Your task to perform on an android device: turn off javascript in the chrome app Image 0: 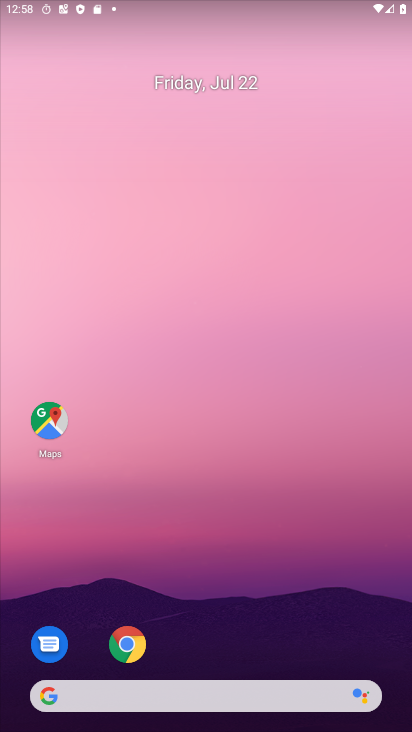
Step 0: drag from (279, 597) to (338, 157)
Your task to perform on an android device: turn off javascript in the chrome app Image 1: 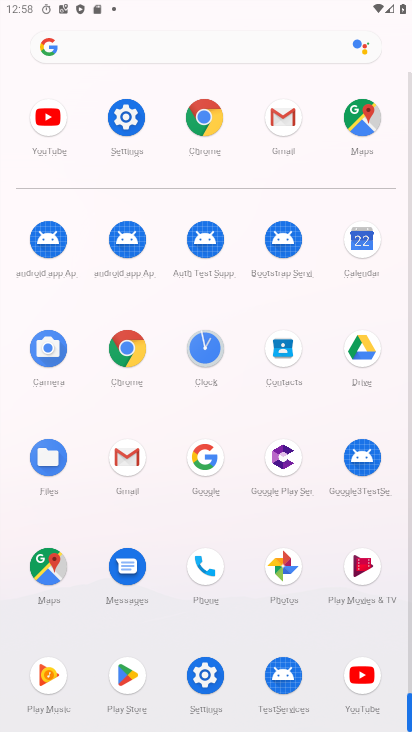
Step 1: click (140, 362)
Your task to perform on an android device: turn off javascript in the chrome app Image 2: 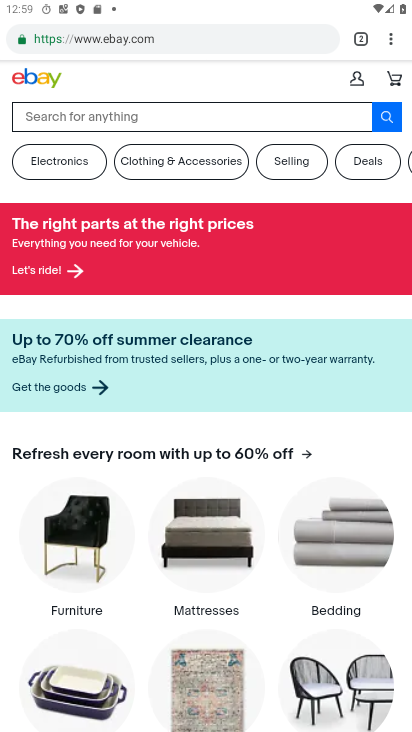
Step 2: click (395, 43)
Your task to perform on an android device: turn off javascript in the chrome app Image 3: 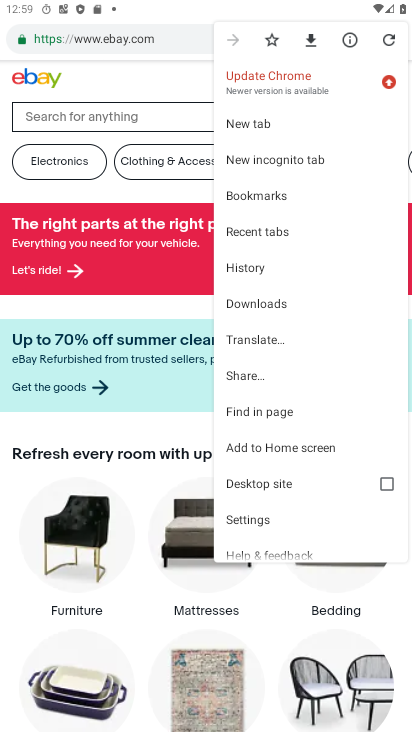
Step 3: click (259, 513)
Your task to perform on an android device: turn off javascript in the chrome app Image 4: 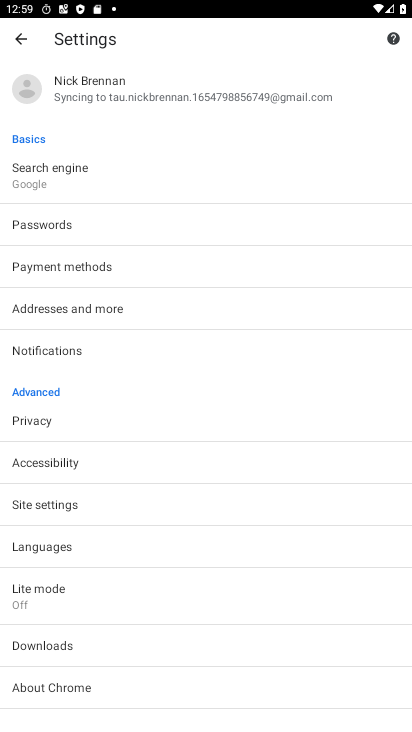
Step 4: click (49, 515)
Your task to perform on an android device: turn off javascript in the chrome app Image 5: 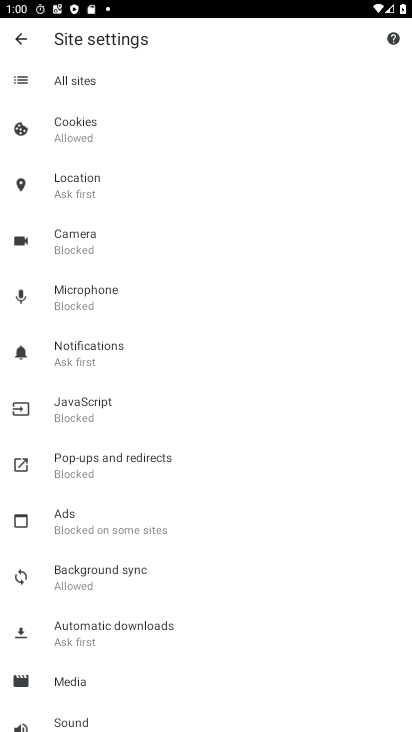
Step 5: click (94, 409)
Your task to perform on an android device: turn off javascript in the chrome app Image 6: 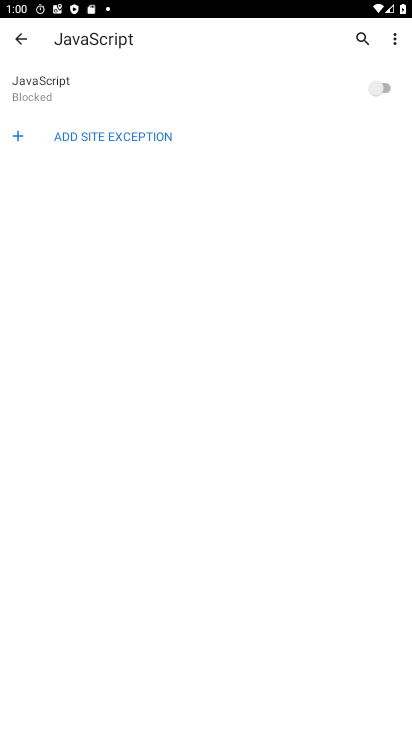
Step 6: task complete